Your task to perform on an android device: choose inbox layout in the gmail app Image 0: 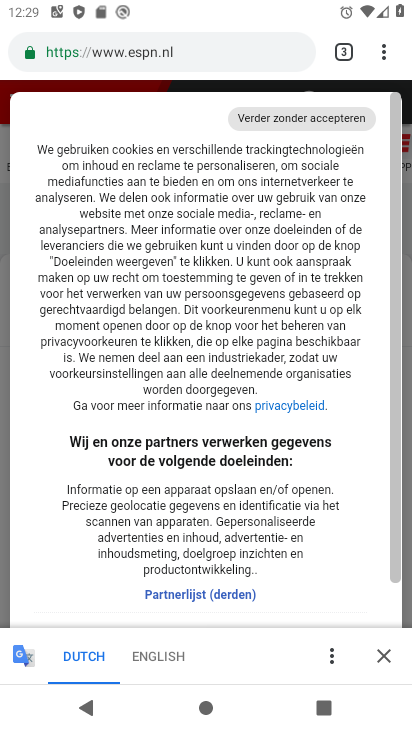
Step 0: press home button
Your task to perform on an android device: choose inbox layout in the gmail app Image 1: 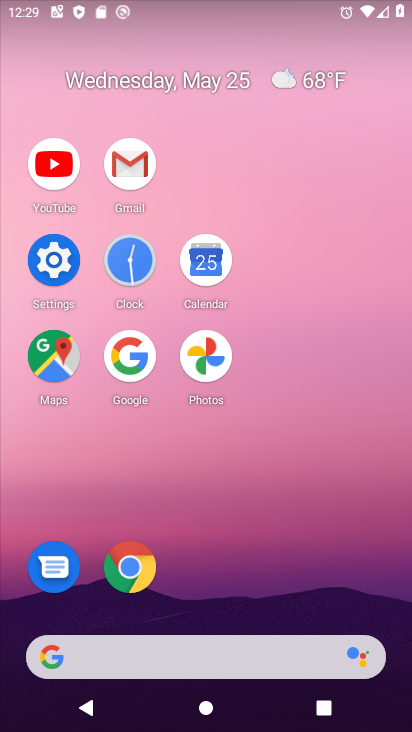
Step 1: click (138, 163)
Your task to perform on an android device: choose inbox layout in the gmail app Image 2: 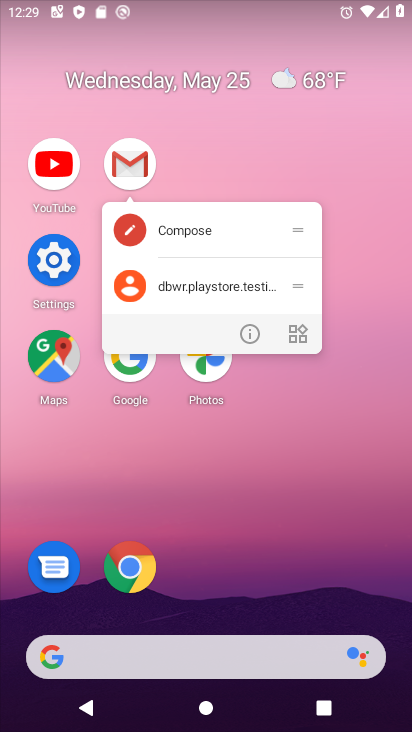
Step 2: click (139, 161)
Your task to perform on an android device: choose inbox layout in the gmail app Image 3: 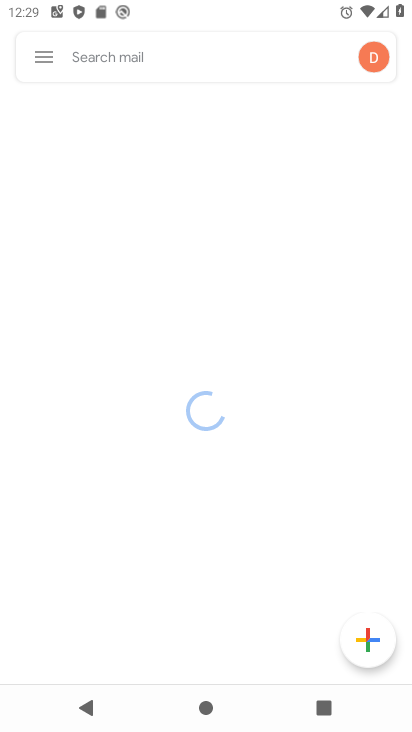
Step 3: click (25, 55)
Your task to perform on an android device: choose inbox layout in the gmail app Image 4: 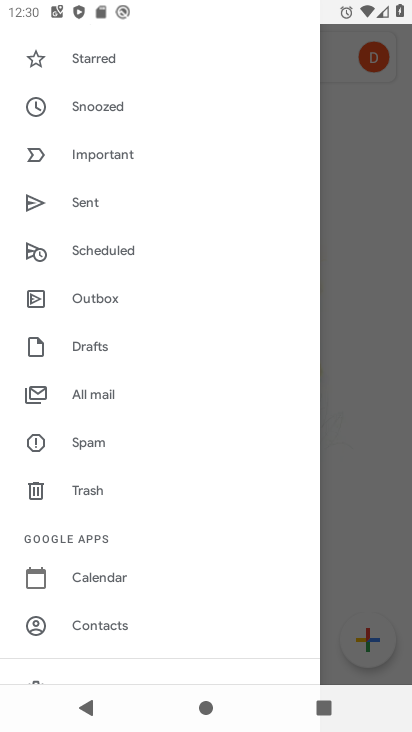
Step 4: drag from (195, 216) to (242, 492)
Your task to perform on an android device: choose inbox layout in the gmail app Image 5: 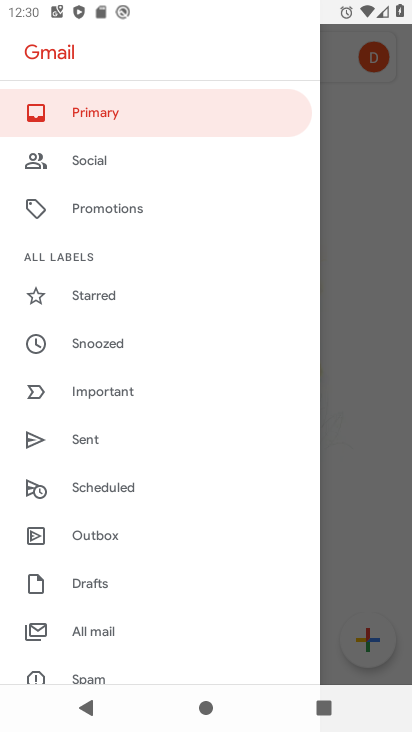
Step 5: drag from (169, 502) to (149, 205)
Your task to perform on an android device: choose inbox layout in the gmail app Image 6: 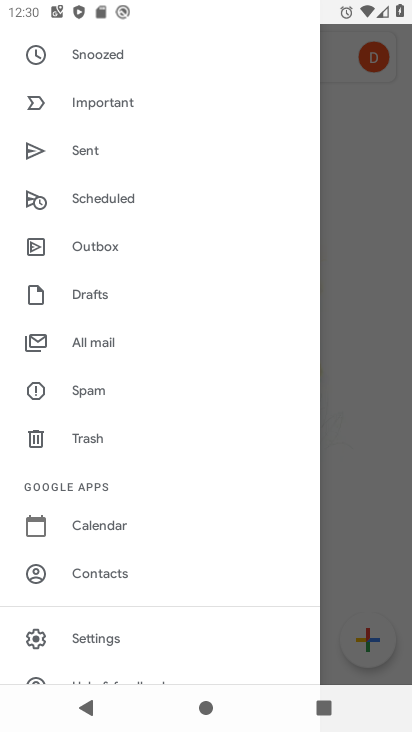
Step 6: drag from (188, 536) to (169, 279)
Your task to perform on an android device: choose inbox layout in the gmail app Image 7: 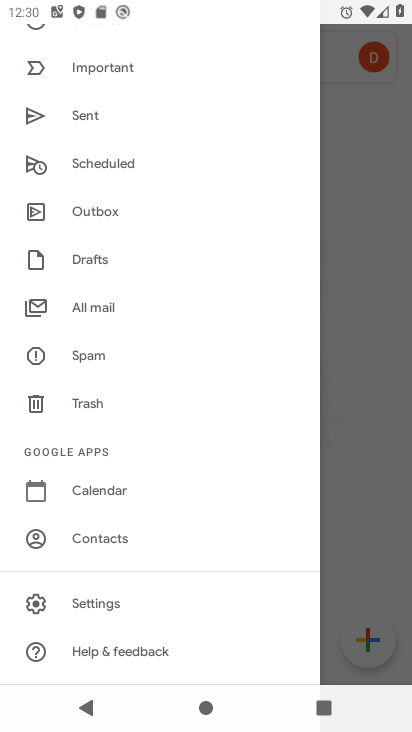
Step 7: click (167, 607)
Your task to perform on an android device: choose inbox layout in the gmail app Image 8: 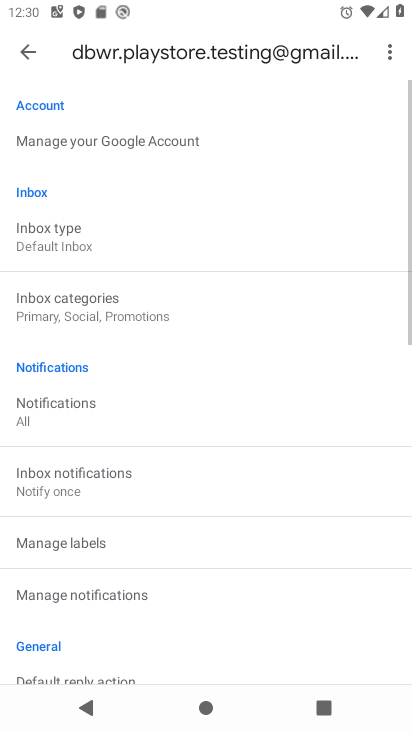
Step 8: click (138, 219)
Your task to perform on an android device: choose inbox layout in the gmail app Image 9: 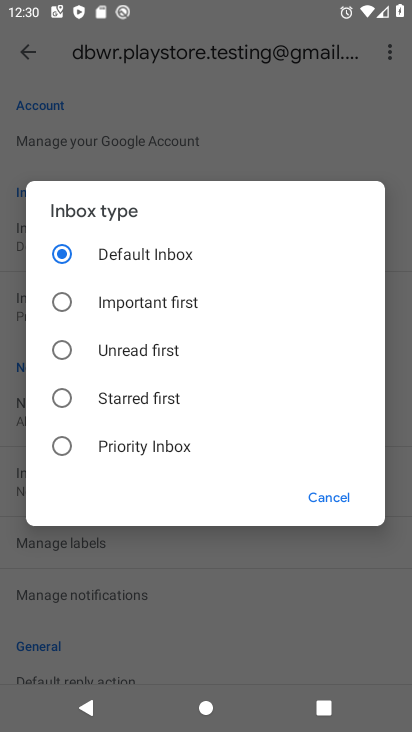
Step 9: task complete